Your task to perform on an android device: What's the weather today? Image 0: 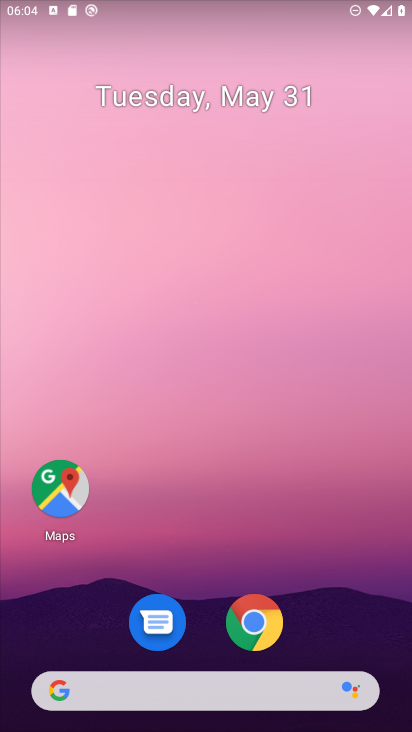
Step 0: drag from (264, 697) to (279, 77)
Your task to perform on an android device: What's the weather today? Image 1: 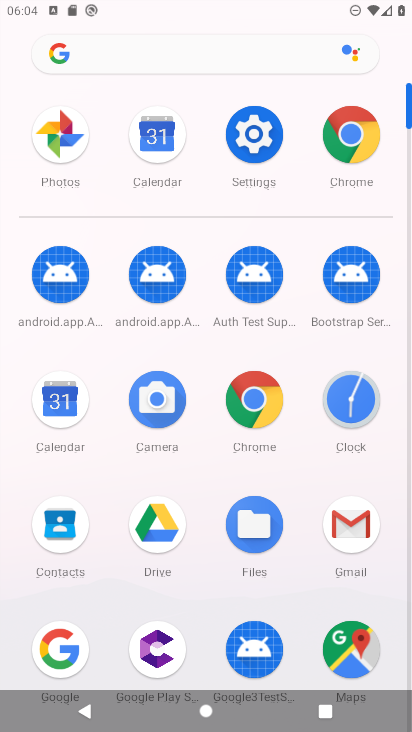
Step 1: click (56, 412)
Your task to perform on an android device: What's the weather today? Image 2: 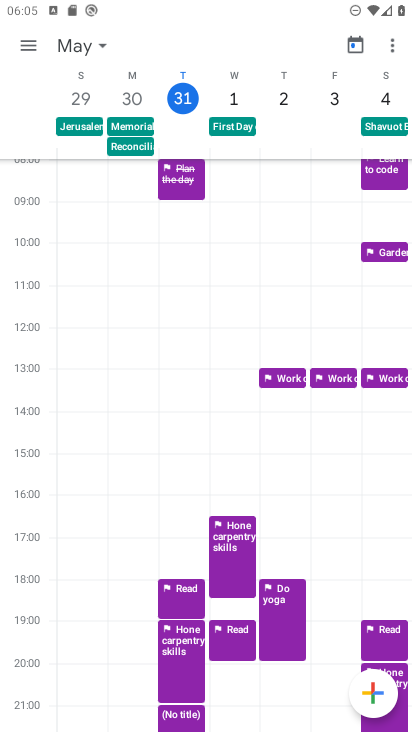
Step 2: press home button
Your task to perform on an android device: What's the weather today? Image 3: 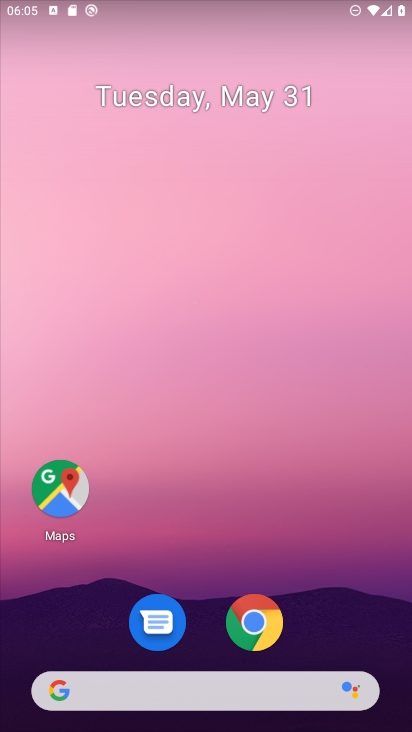
Step 3: drag from (25, 243) to (392, 257)
Your task to perform on an android device: What's the weather today? Image 4: 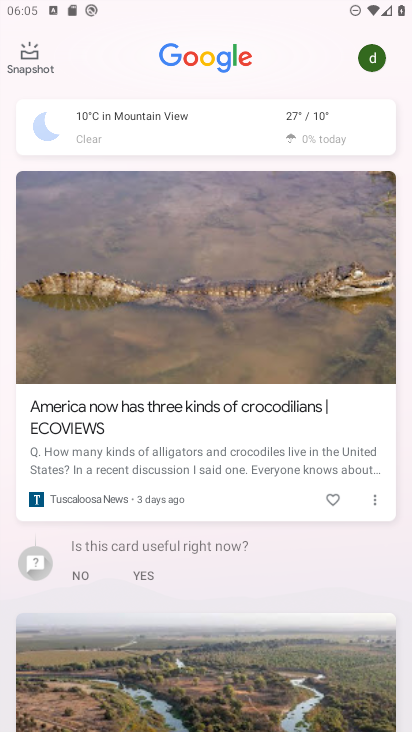
Step 4: click (256, 116)
Your task to perform on an android device: What's the weather today? Image 5: 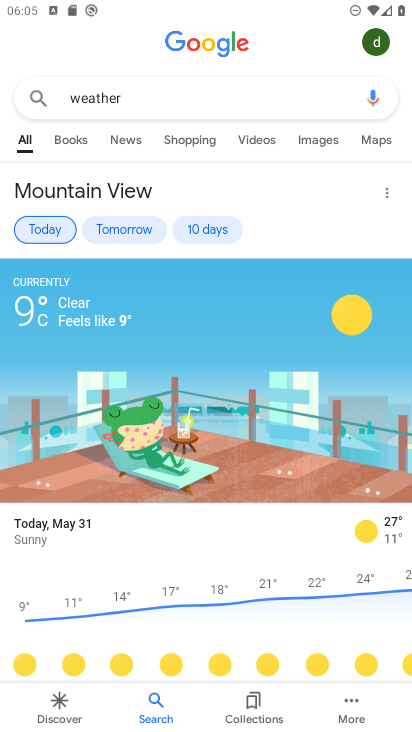
Step 5: task complete